Your task to perform on an android device: Is it going to rain today? Image 0: 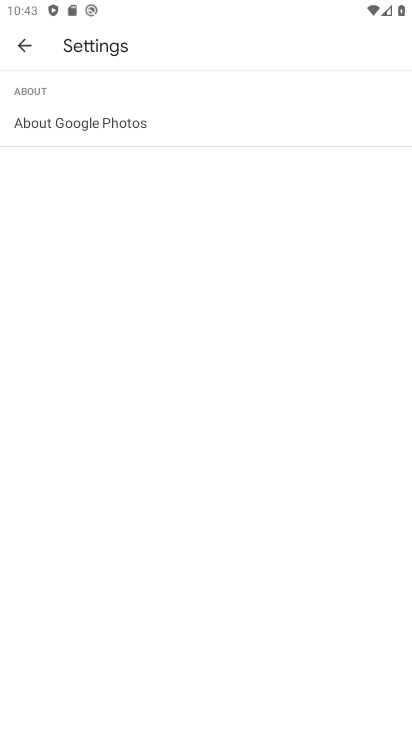
Step 0: press home button
Your task to perform on an android device: Is it going to rain today? Image 1: 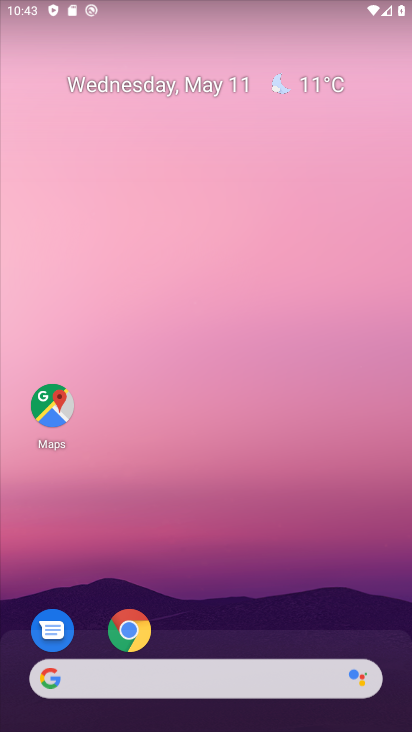
Step 1: click (125, 627)
Your task to perform on an android device: Is it going to rain today? Image 2: 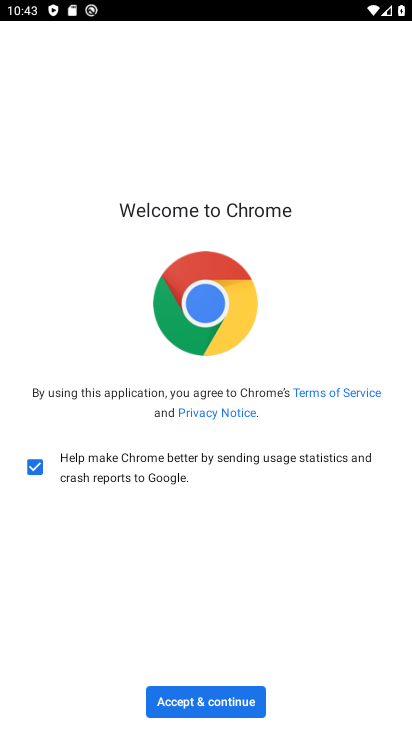
Step 2: click (239, 698)
Your task to perform on an android device: Is it going to rain today? Image 3: 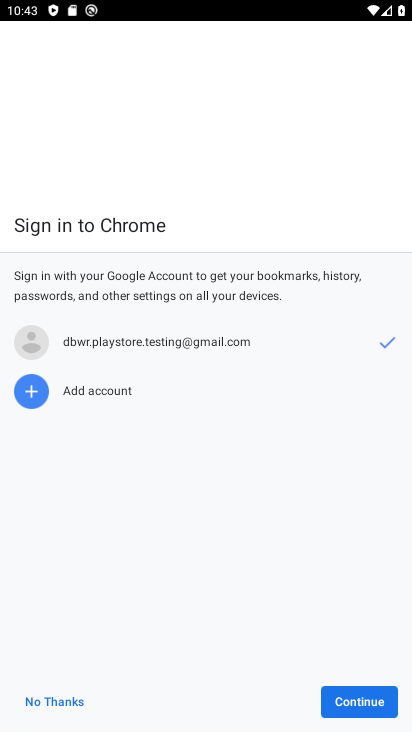
Step 3: click (361, 713)
Your task to perform on an android device: Is it going to rain today? Image 4: 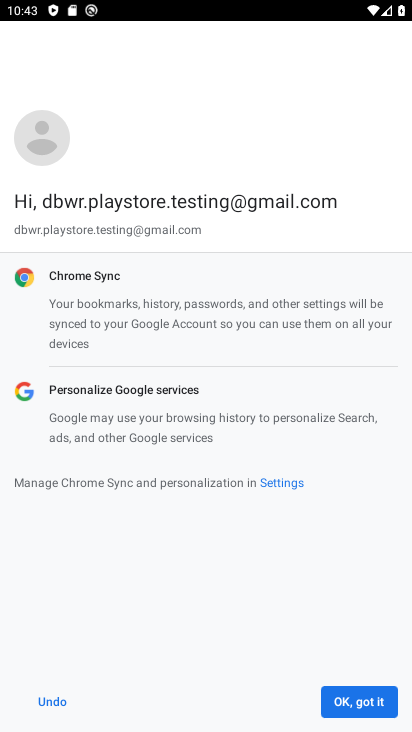
Step 4: click (365, 706)
Your task to perform on an android device: Is it going to rain today? Image 5: 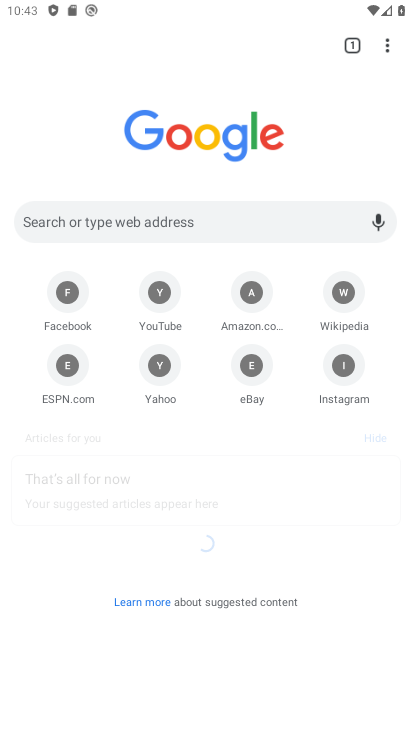
Step 5: drag from (123, 57) to (165, 57)
Your task to perform on an android device: Is it going to rain today? Image 6: 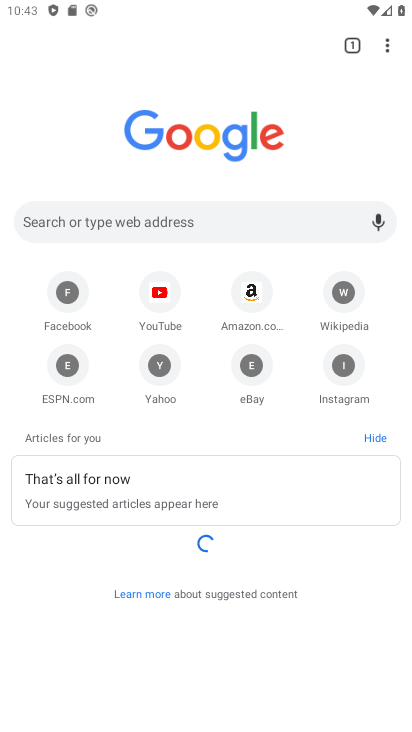
Step 6: click (159, 213)
Your task to perform on an android device: Is it going to rain today? Image 7: 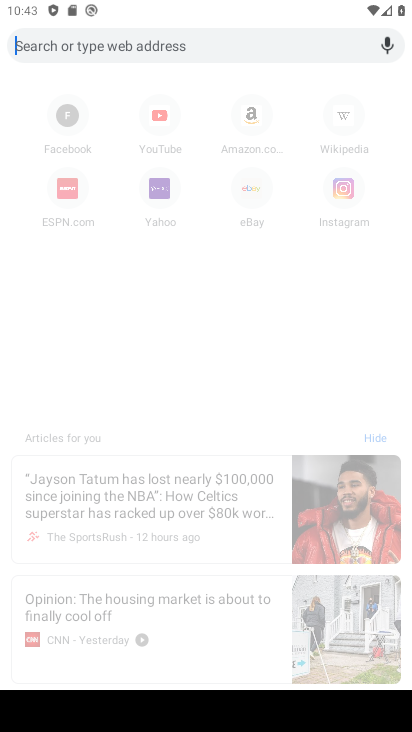
Step 7: type "Is it going to rain today"
Your task to perform on an android device: Is it going to rain today? Image 8: 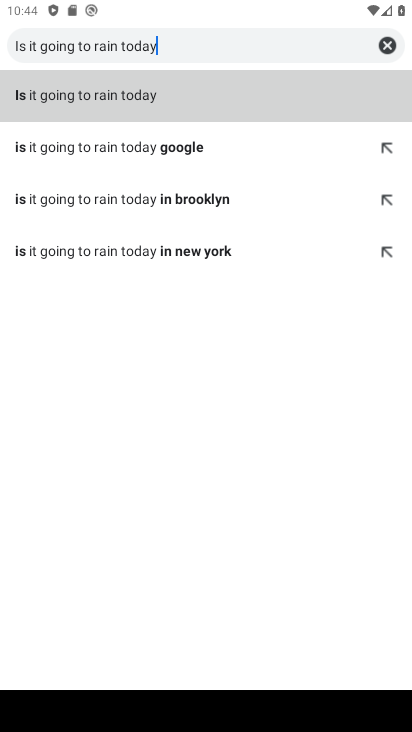
Step 8: click (115, 111)
Your task to perform on an android device: Is it going to rain today? Image 9: 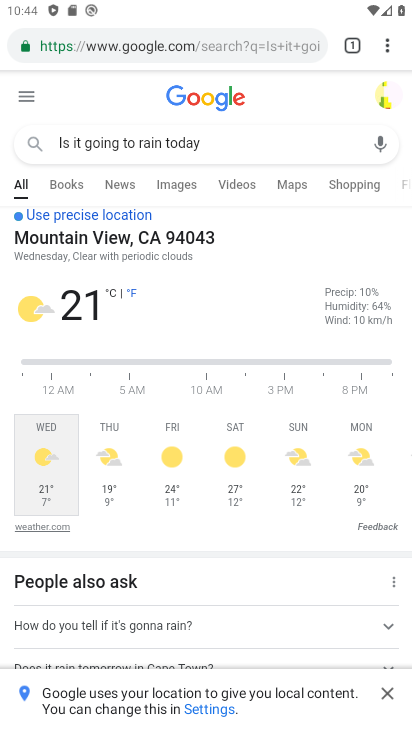
Step 9: task complete